Your task to perform on an android device: read, delete, or share a saved page in the chrome app Image 0: 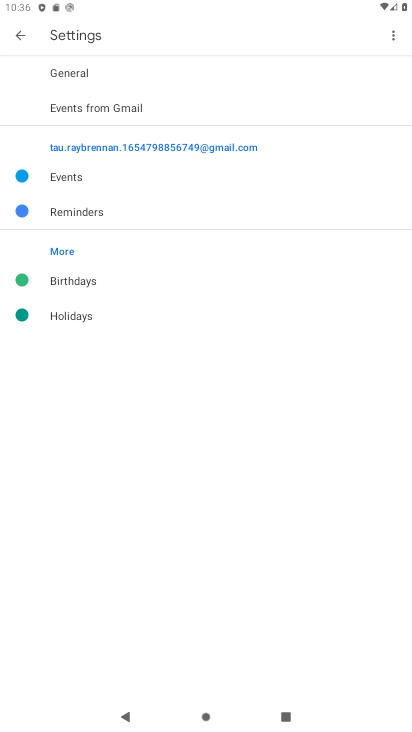
Step 0: press home button
Your task to perform on an android device: read, delete, or share a saved page in the chrome app Image 1: 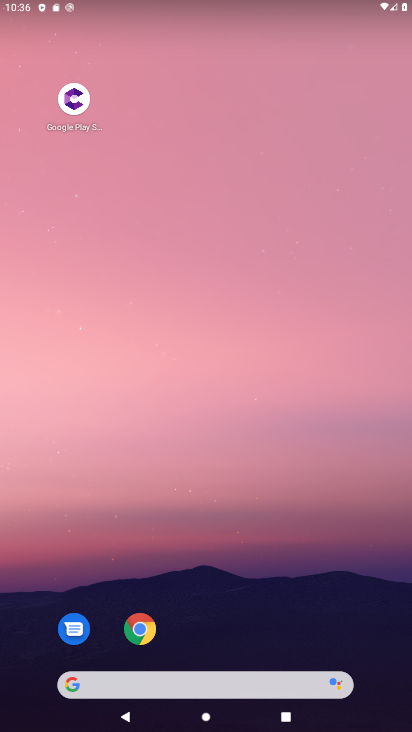
Step 1: click (135, 627)
Your task to perform on an android device: read, delete, or share a saved page in the chrome app Image 2: 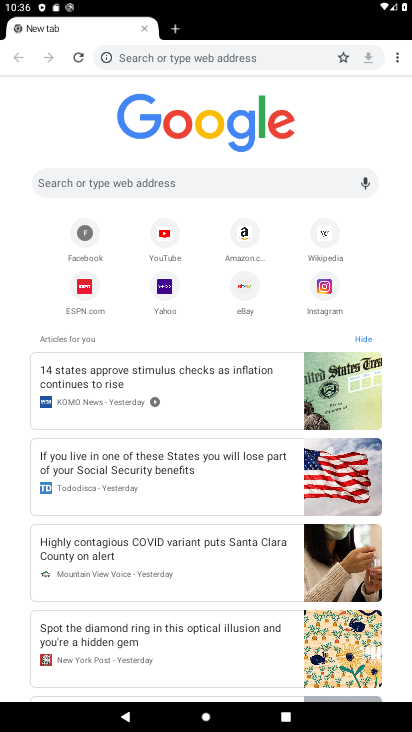
Step 2: click (397, 47)
Your task to perform on an android device: read, delete, or share a saved page in the chrome app Image 3: 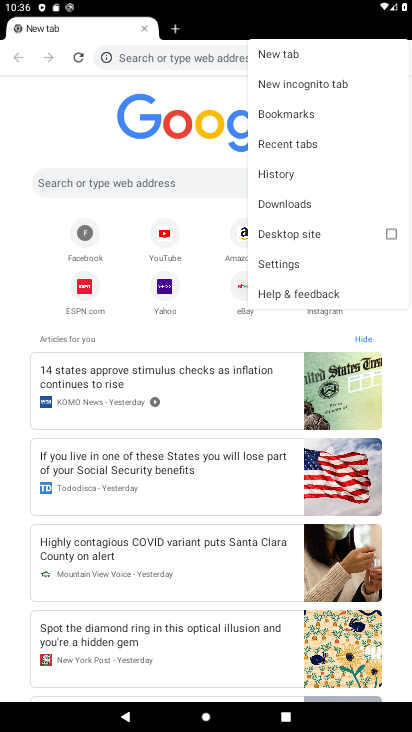
Step 3: click (291, 201)
Your task to perform on an android device: read, delete, or share a saved page in the chrome app Image 4: 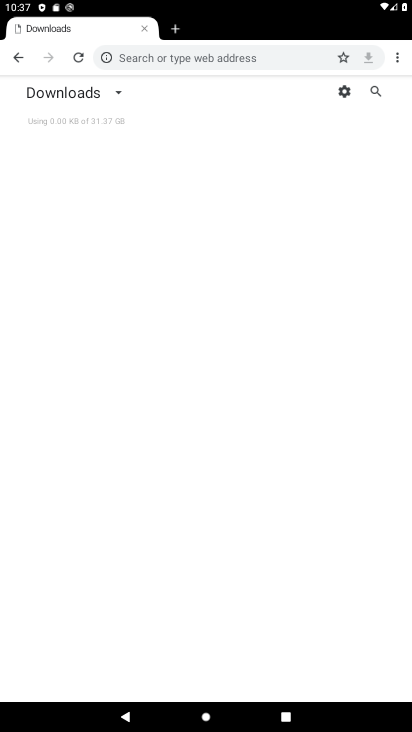
Step 4: task complete